Your task to perform on an android device: turn off location history Image 0: 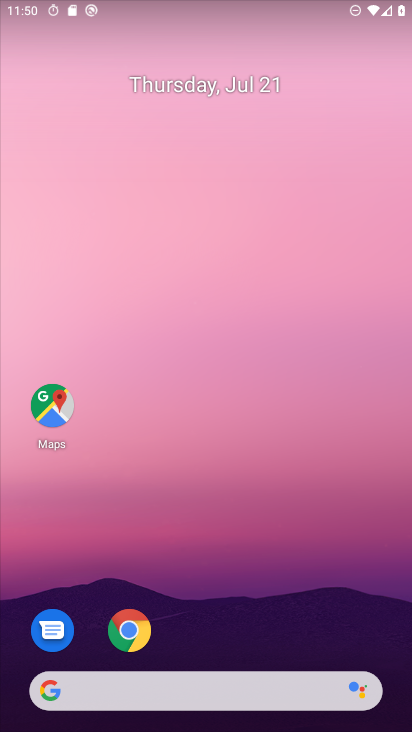
Step 0: press home button
Your task to perform on an android device: turn off location history Image 1: 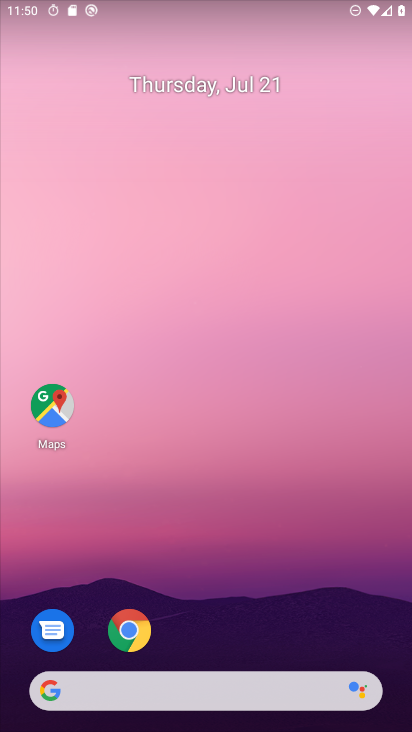
Step 1: drag from (299, 624) to (268, 130)
Your task to perform on an android device: turn off location history Image 2: 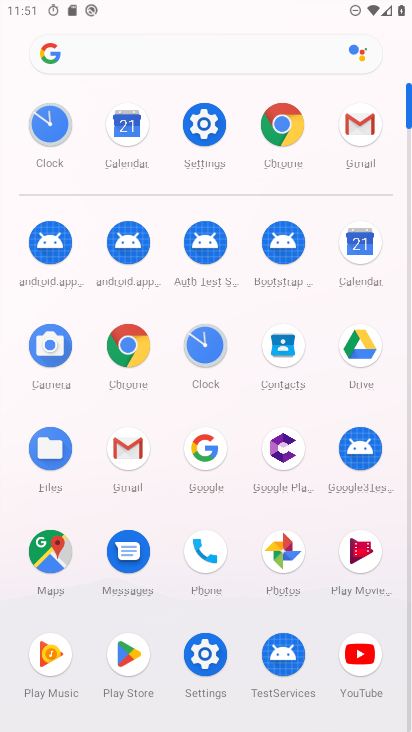
Step 2: click (196, 122)
Your task to perform on an android device: turn off location history Image 3: 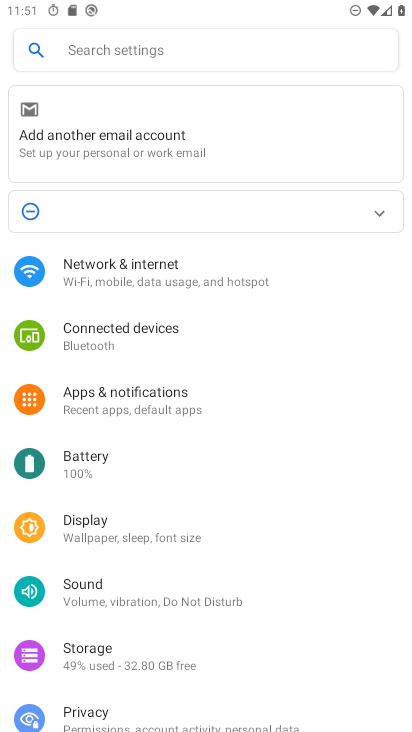
Step 3: drag from (114, 688) to (134, 409)
Your task to perform on an android device: turn off location history Image 4: 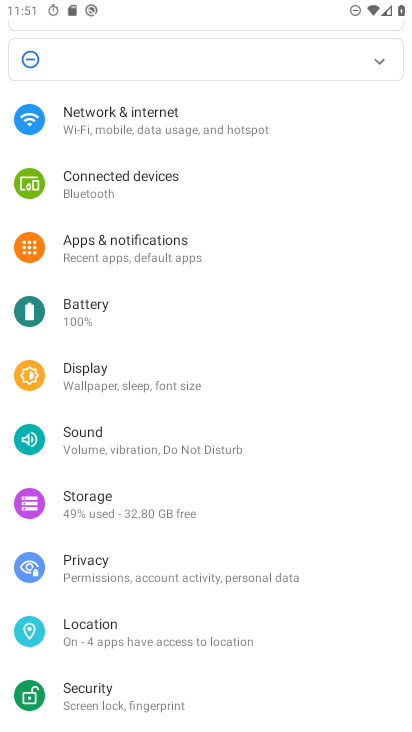
Step 4: click (109, 629)
Your task to perform on an android device: turn off location history Image 5: 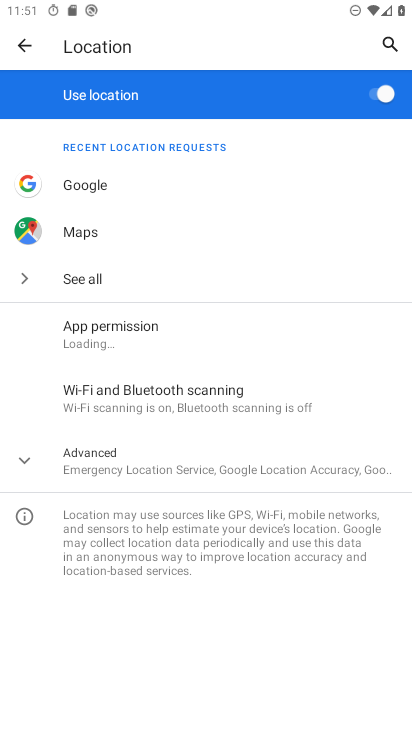
Step 5: click (30, 456)
Your task to perform on an android device: turn off location history Image 6: 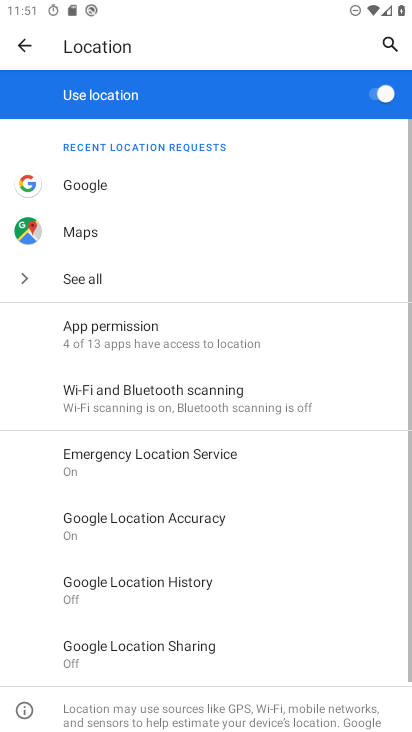
Step 6: click (164, 590)
Your task to perform on an android device: turn off location history Image 7: 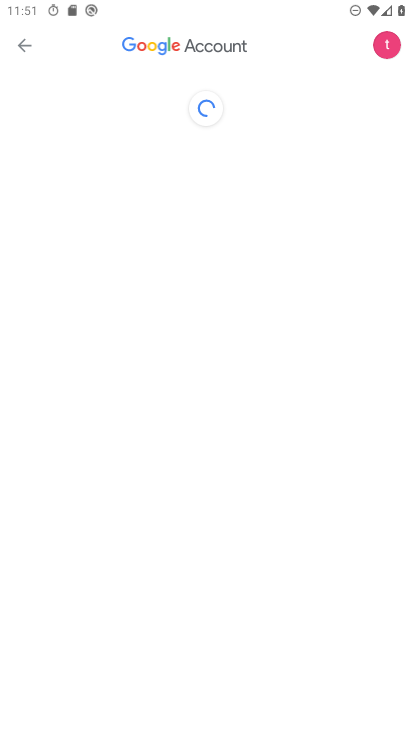
Step 7: task complete